Your task to perform on an android device: add a contact Image 0: 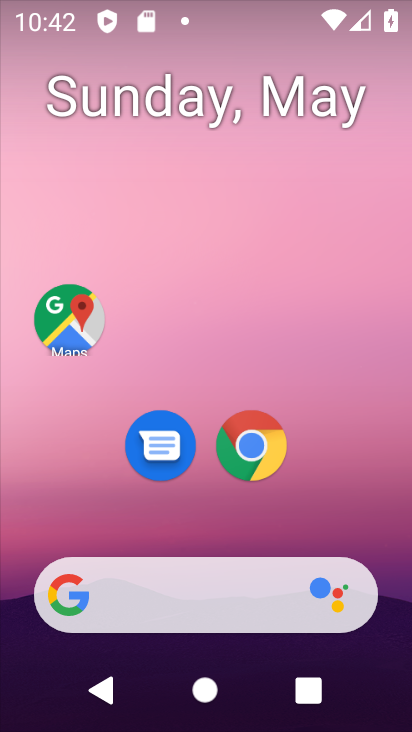
Step 0: drag from (164, 419) to (146, 138)
Your task to perform on an android device: add a contact Image 1: 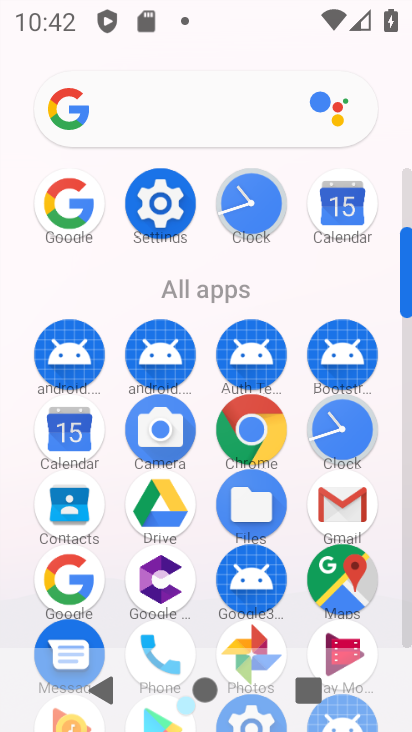
Step 1: click (63, 505)
Your task to perform on an android device: add a contact Image 2: 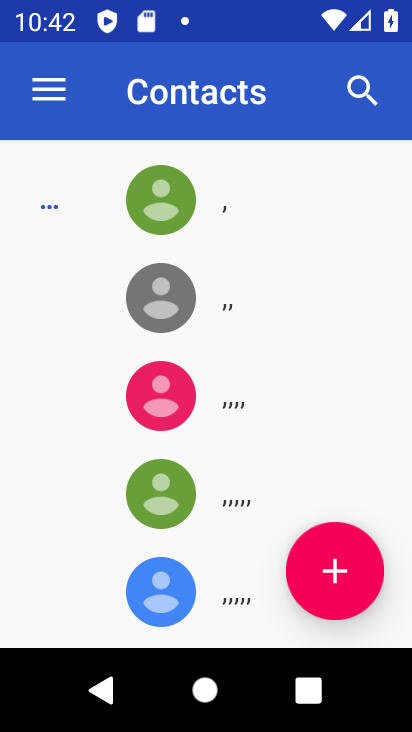
Step 2: click (330, 576)
Your task to perform on an android device: add a contact Image 3: 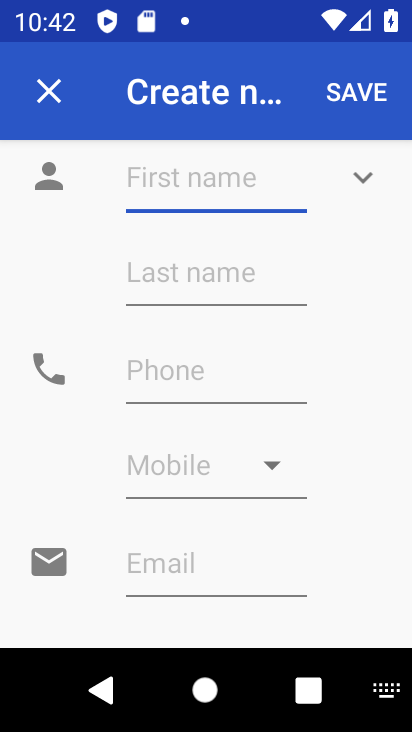
Step 3: type "cd "
Your task to perform on an android device: add a contact Image 4: 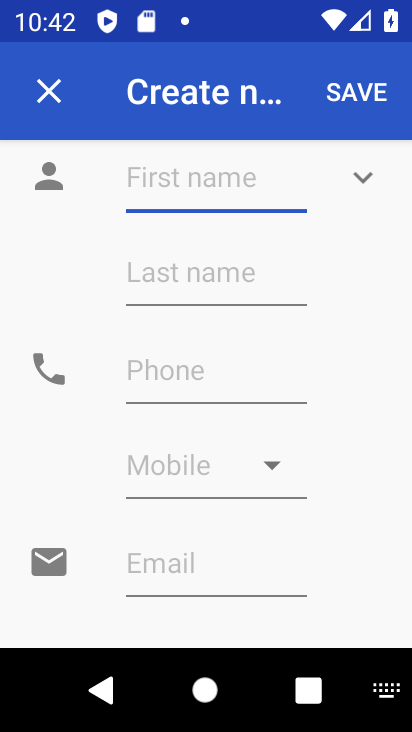
Step 4: click (171, 290)
Your task to perform on an android device: add a contact Image 5: 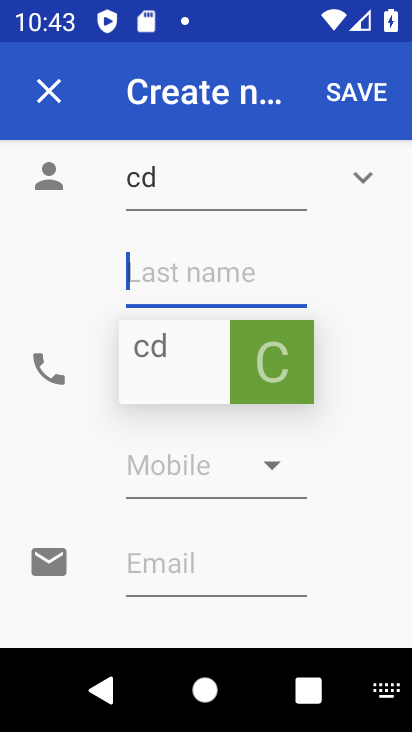
Step 5: type "dcd"
Your task to perform on an android device: add a contact Image 6: 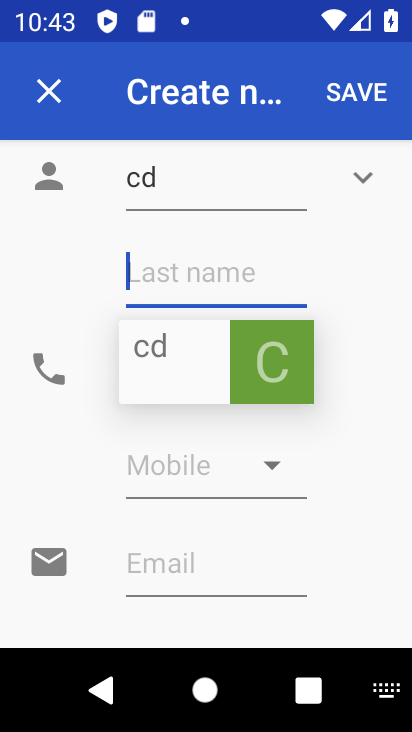
Step 6: click (143, 465)
Your task to perform on an android device: add a contact Image 7: 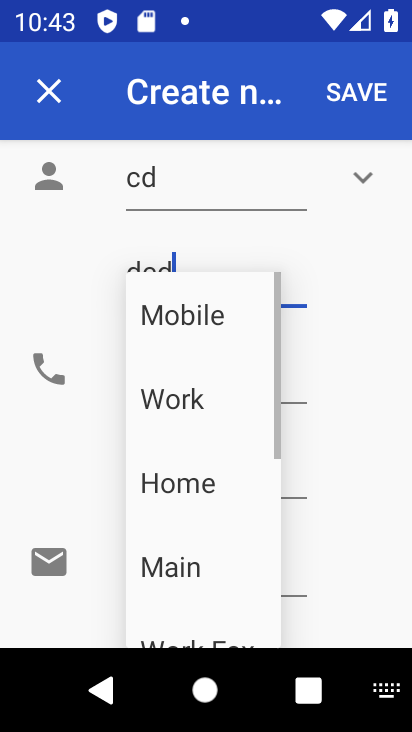
Step 7: click (213, 326)
Your task to perform on an android device: add a contact Image 8: 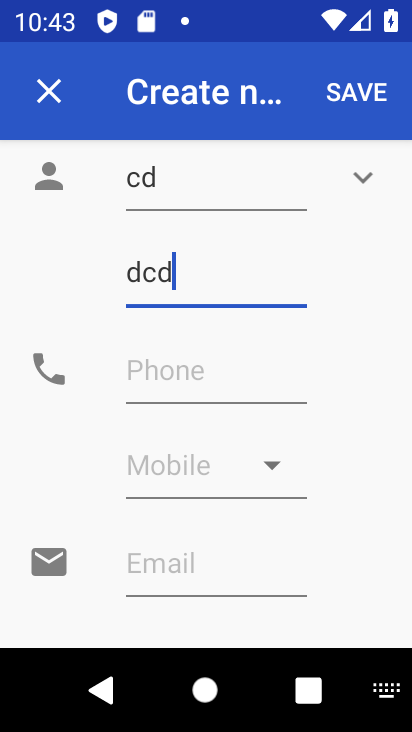
Step 8: click (215, 383)
Your task to perform on an android device: add a contact Image 9: 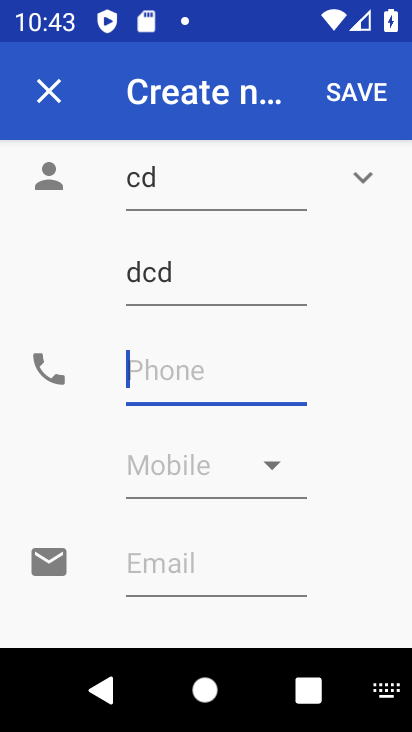
Step 9: type "3434"
Your task to perform on an android device: add a contact Image 10: 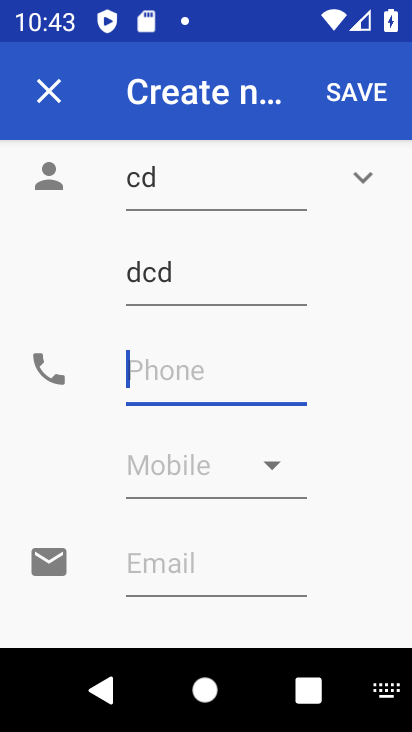
Step 10: click (203, 551)
Your task to perform on an android device: add a contact Image 11: 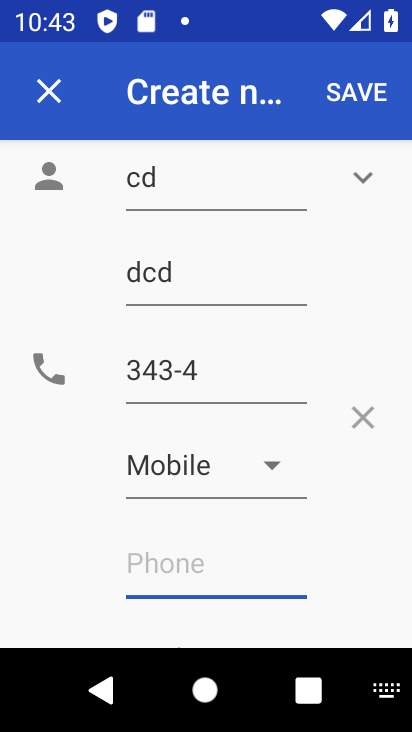
Step 11: click (358, 96)
Your task to perform on an android device: add a contact Image 12: 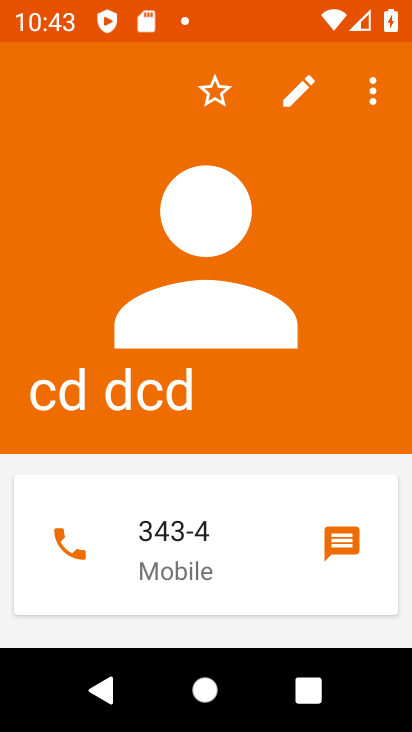
Step 12: task complete